Your task to perform on an android device: turn on javascript in the chrome app Image 0: 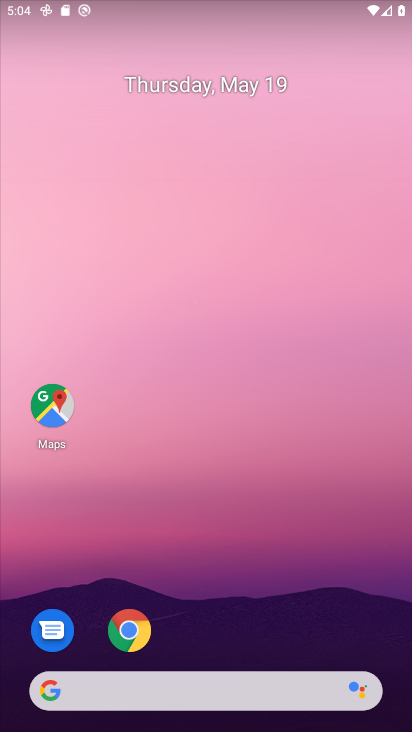
Step 0: drag from (256, 533) to (217, 21)
Your task to perform on an android device: turn on javascript in the chrome app Image 1: 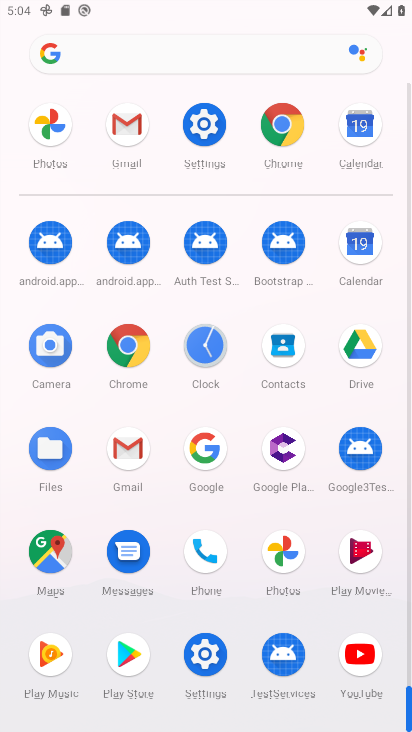
Step 1: click (132, 339)
Your task to perform on an android device: turn on javascript in the chrome app Image 2: 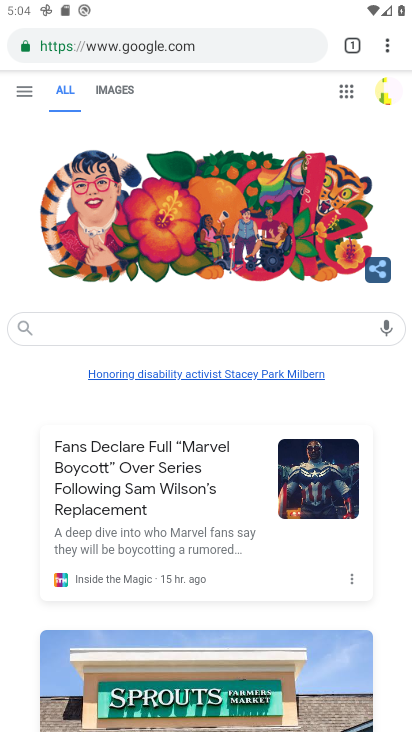
Step 2: drag from (389, 50) to (229, 507)
Your task to perform on an android device: turn on javascript in the chrome app Image 3: 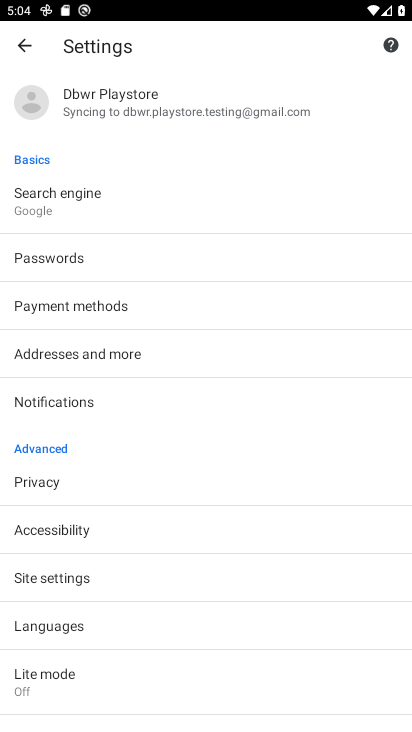
Step 3: press back button
Your task to perform on an android device: turn on javascript in the chrome app Image 4: 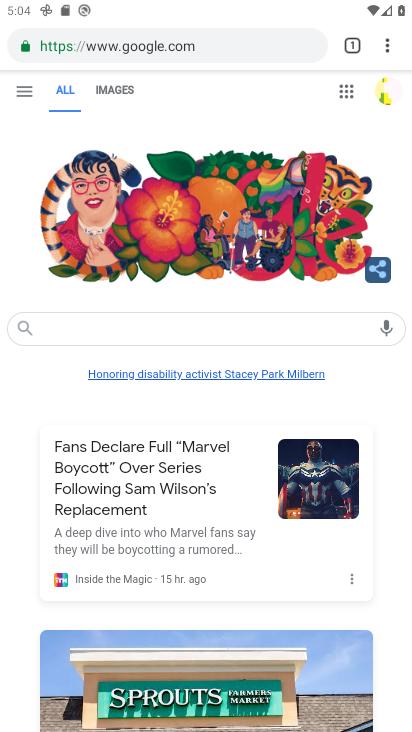
Step 4: drag from (379, 34) to (223, 503)
Your task to perform on an android device: turn on javascript in the chrome app Image 5: 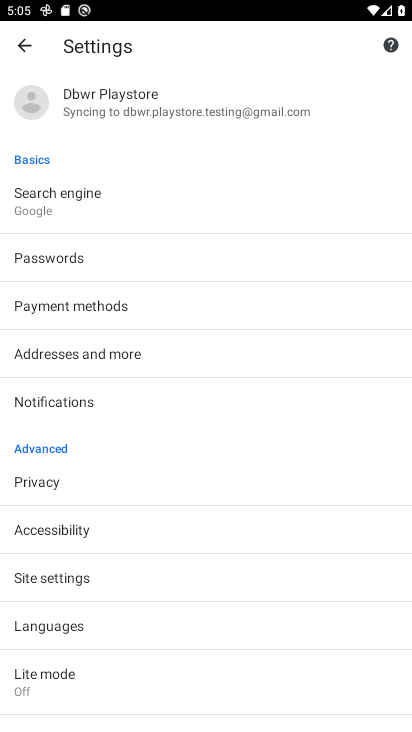
Step 5: click (69, 569)
Your task to perform on an android device: turn on javascript in the chrome app Image 6: 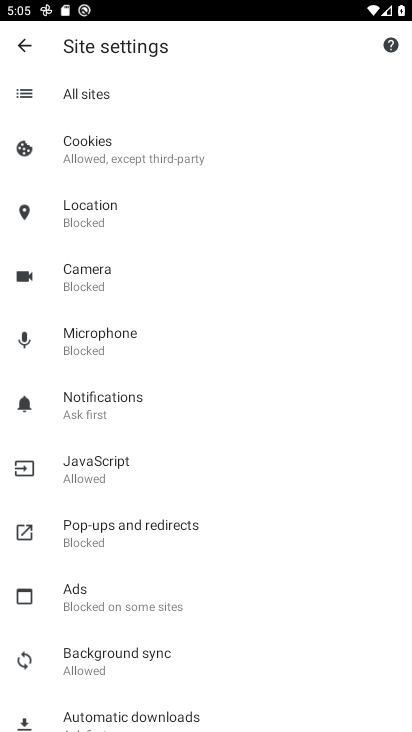
Step 6: click (141, 469)
Your task to perform on an android device: turn on javascript in the chrome app Image 7: 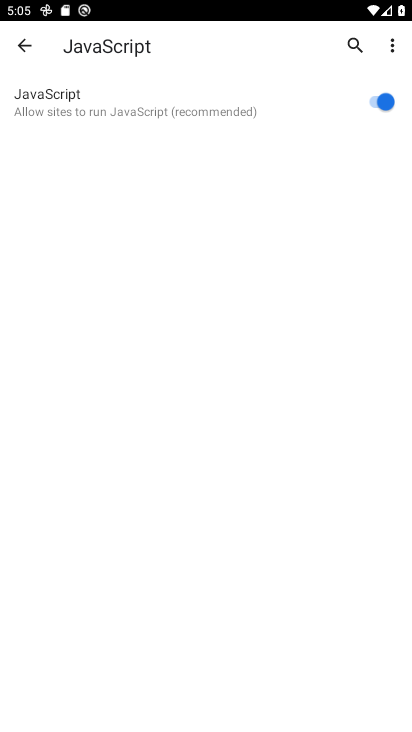
Step 7: task complete